Your task to perform on an android device: Go to notification settings Image 0: 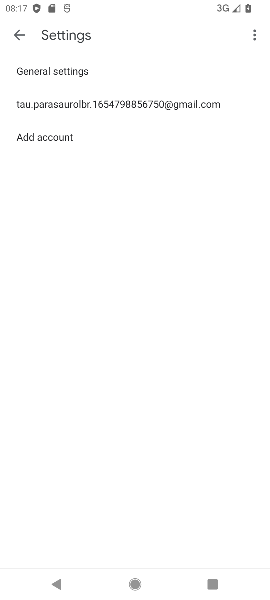
Step 0: press home button
Your task to perform on an android device: Go to notification settings Image 1: 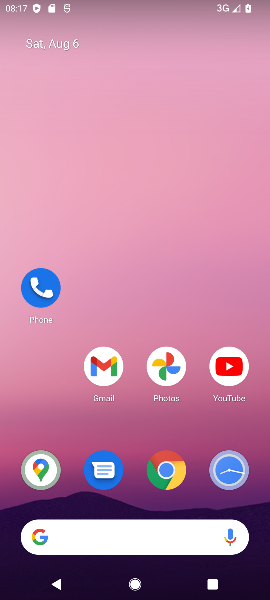
Step 1: drag from (115, 583) to (138, 57)
Your task to perform on an android device: Go to notification settings Image 2: 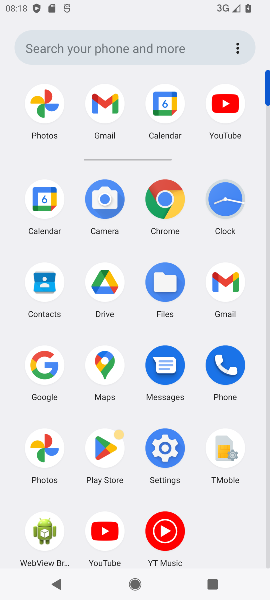
Step 2: click (148, 459)
Your task to perform on an android device: Go to notification settings Image 3: 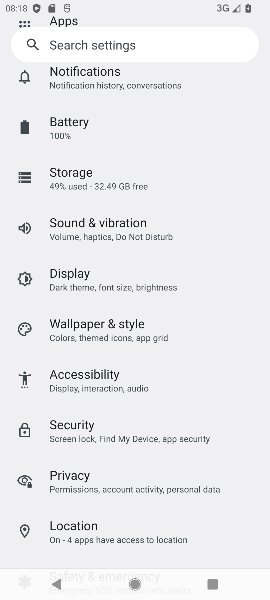
Step 3: click (84, 77)
Your task to perform on an android device: Go to notification settings Image 4: 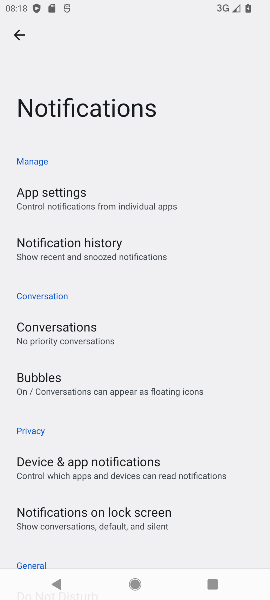
Step 4: task complete